Your task to perform on an android device: refresh tabs in the chrome app Image 0: 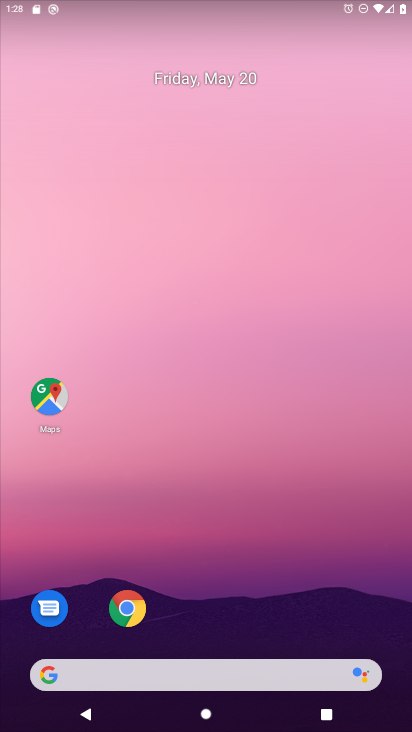
Step 0: press home button
Your task to perform on an android device: refresh tabs in the chrome app Image 1: 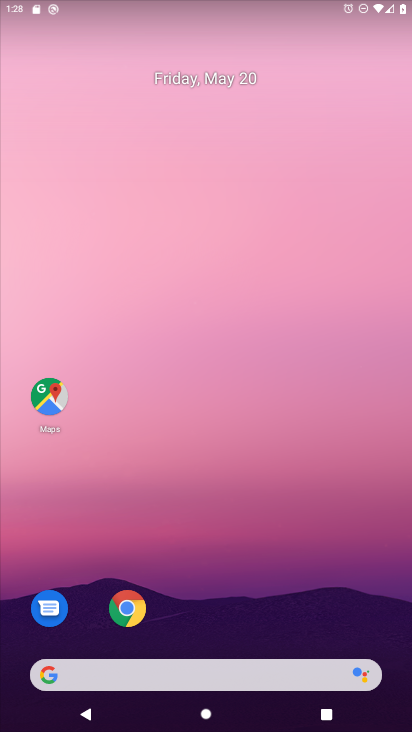
Step 1: click (143, 601)
Your task to perform on an android device: refresh tabs in the chrome app Image 2: 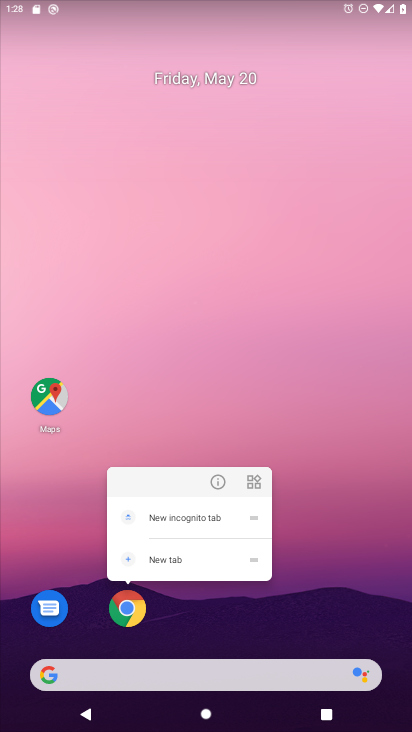
Step 2: click (119, 608)
Your task to perform on an android device: refresh tabs in the chrome app Image 3: 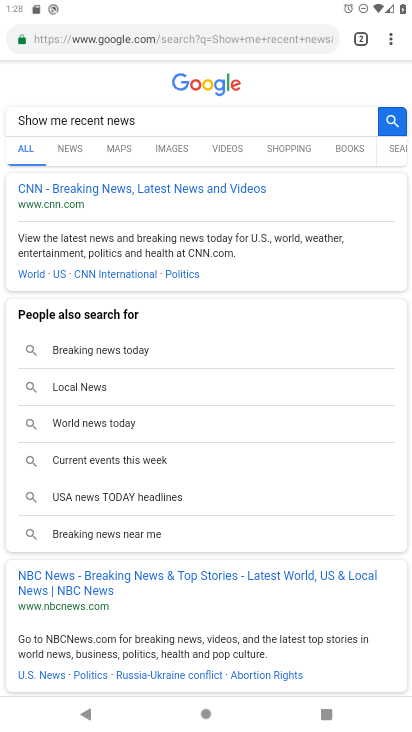
Step 3: click (396, 26)
Your task to perform on an android device: refresh tabs in the chrome app Image 4: 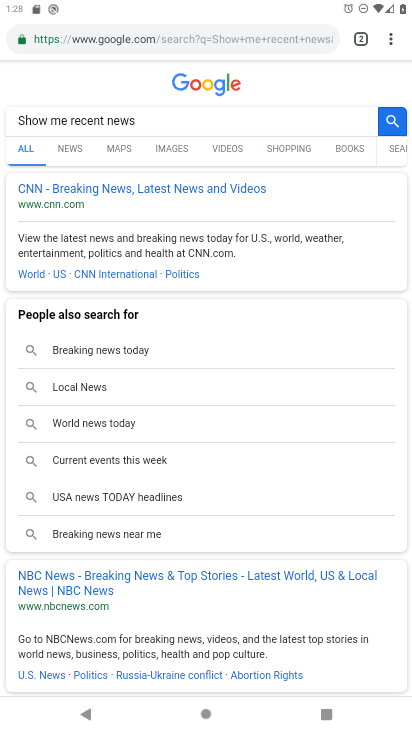
Step 4: task complete